Your task to perform on an android device: turn off data saver in the chrome app Image 0: 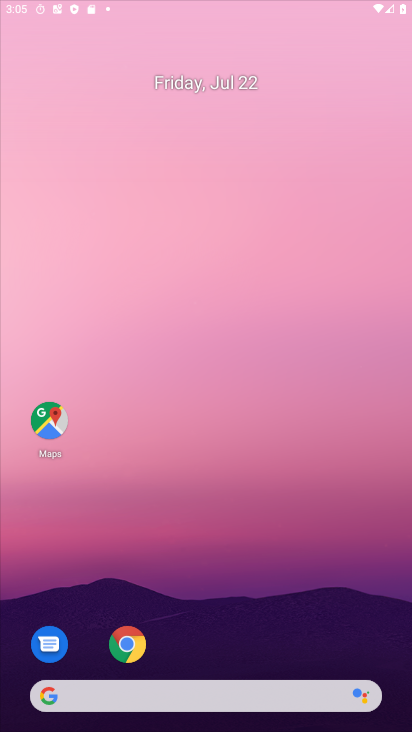
Step 0: press home button
Your task to perform on an android device: turn off data saver in the chrome app Image 1: 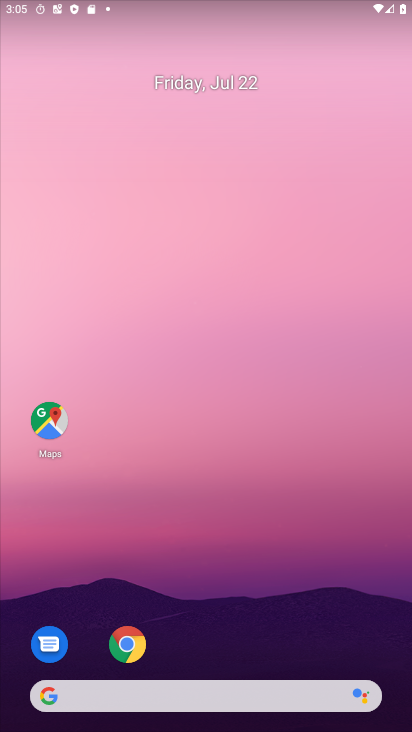
Step 1: drag from (207, 630) to (193, 210)
Your task to perform on an android device: turn off data saver in the chrome app Image 2: 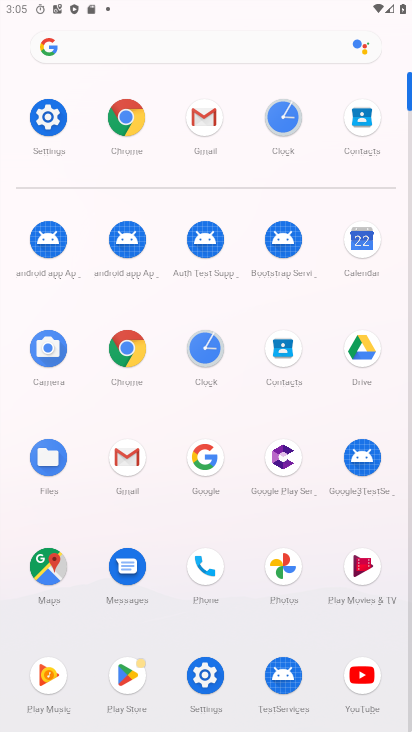
Step 2: click (129, 121)
Your task to perform on an android device: turn off data saver in the chrome app Image 3: 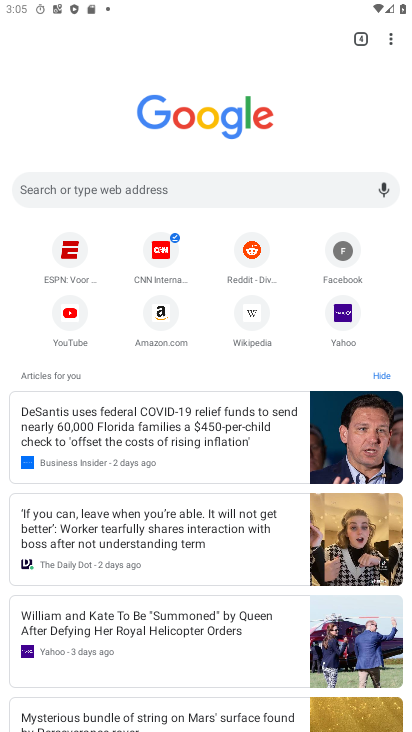
Step 3: drag from (393, 38) to (243, 375)
Your task to perform on an android device: turn off data saver in the chrome app Image 4: 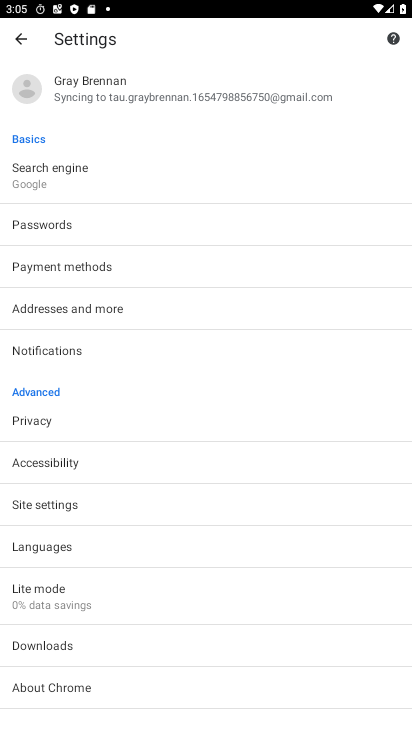
Step 4: click (45, 591)
Your task to perform on an android device: turn off data saver in the chrome app Image 5: 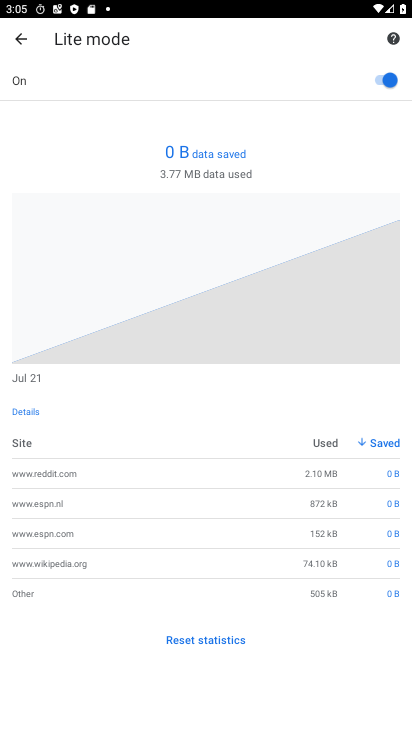
Step 5: click (387, 81)
Your task to perform on an android device: turn off data saver in the chrome app Image 6: 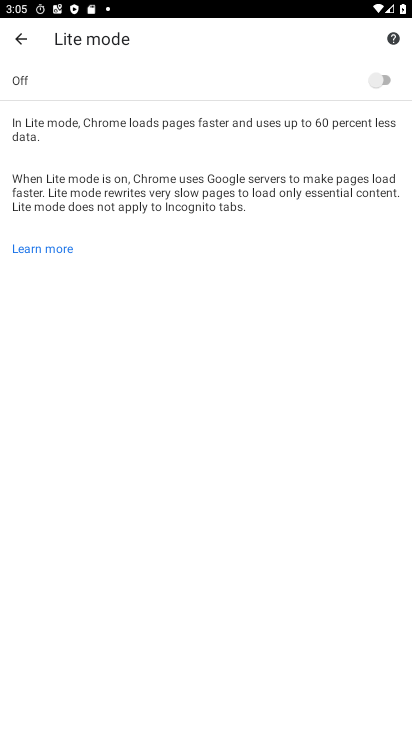
Step 6: task complete